Your task to perform on an android device: Open Youtube and go to "Your channel" Image 0: 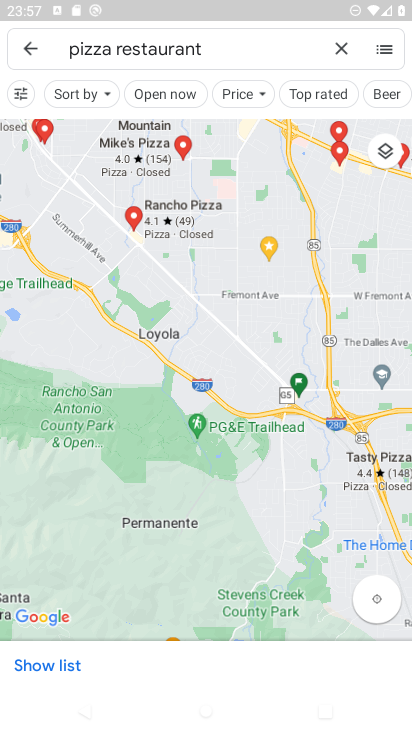
Step 0: task complete